Your task to perform on an android device: turn off smart reply in the gmail app Image 0: 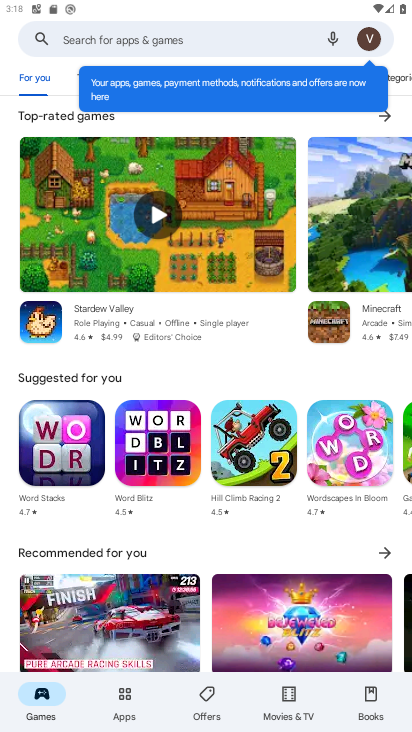
Step 0: press home button
Your task to perform on an android device: turn off smart reply in the gmail app Image 1: 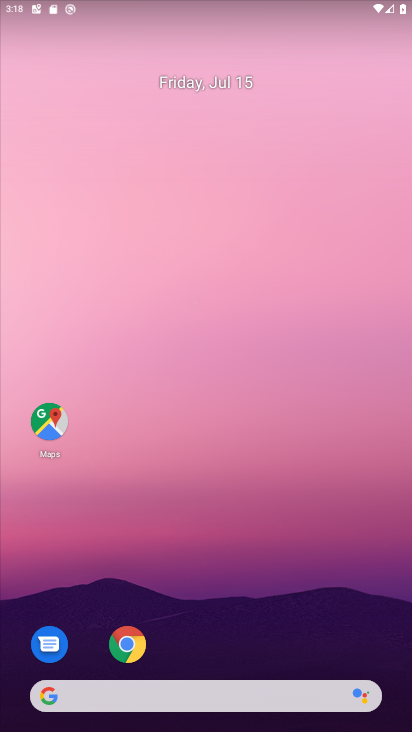
Step 1: drag from (215, 603) to (230, 338)
Your task to perform on an android device: turn off smart reply in the gmail app Image 2: 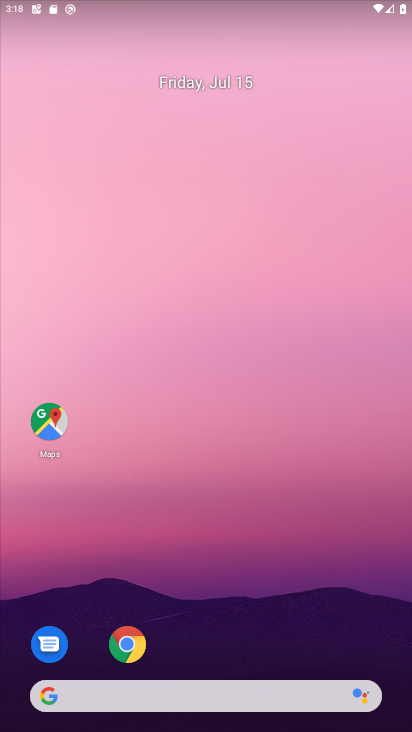
Step 2: drag from (193, 641) to (217, 1)
Your task to perform on an android device: turn off smart reply in the gmail app Image 3: 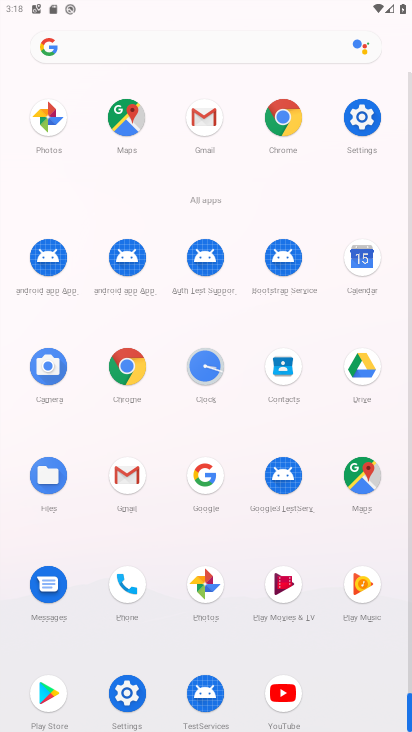
Step 3: click (205, 123)
Your task to perform on an android device: turn off smart reply in the gmail app Image 4: 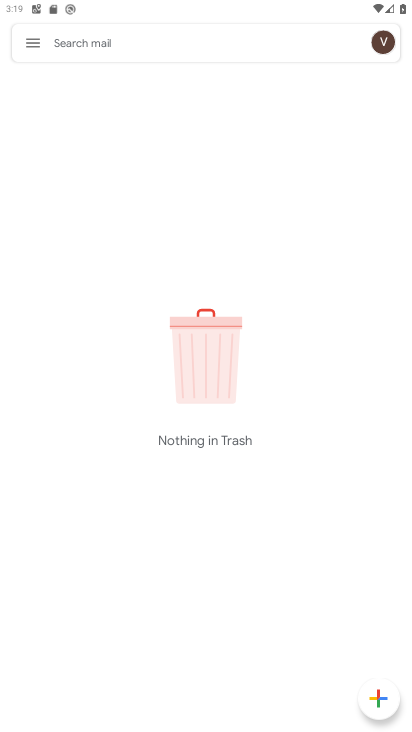
Step 4: click (36, 50)
Your task to perform on an android device: turn off smart reply in the gmail app Image 5: 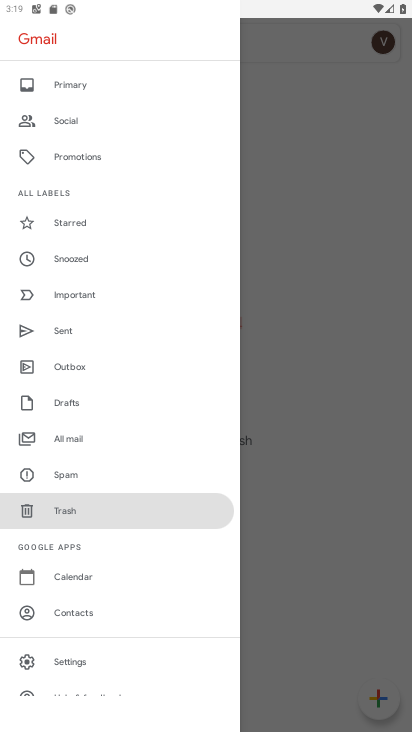
Step 5: click (167, 662)
Your task to perform on an android device: turn off smart reply in the gmail app Image 6: 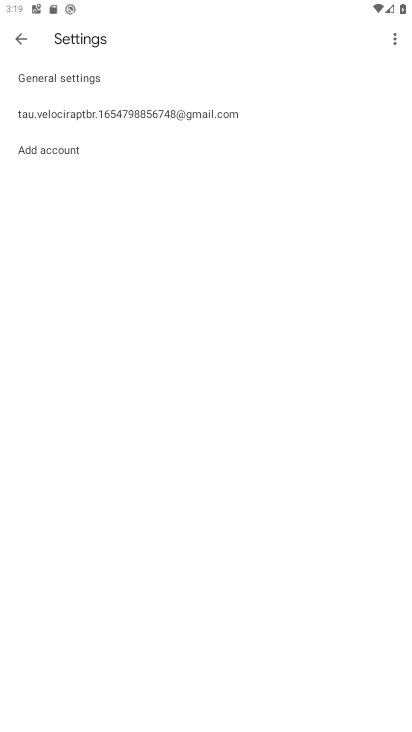
Step 6: click (251, 105)
Your task to perform on an android device: turn off smart reply in the gmail app Image 7: 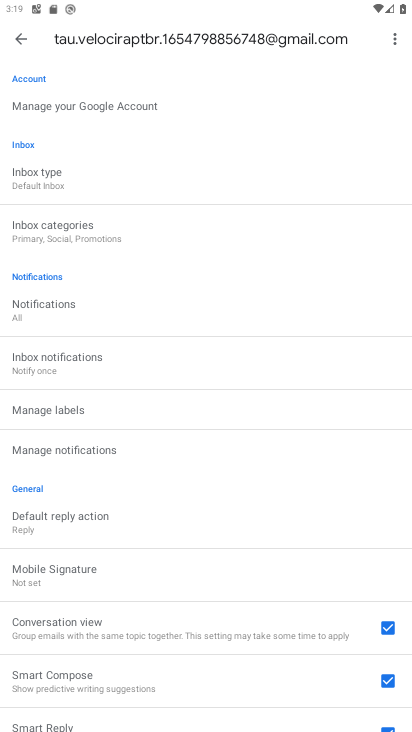
Step 7: click (165, 720)
Your task to perform on an android device: turn off smart reply in the gmail app Image 8: 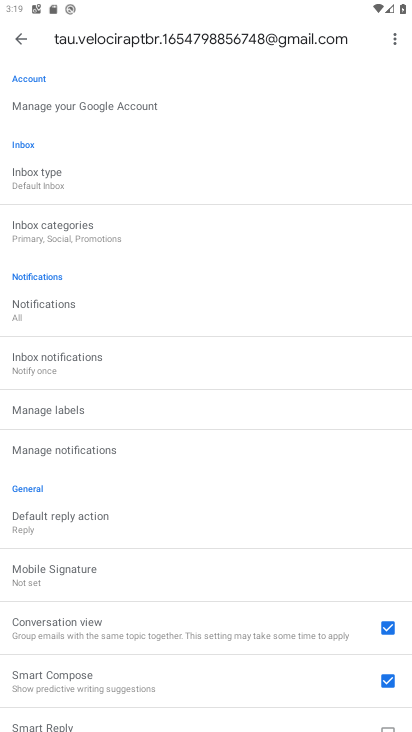
Step 8: task complete